Your task to perform on an android device: Open Google Chrome and open the bookmarks view Image 0: 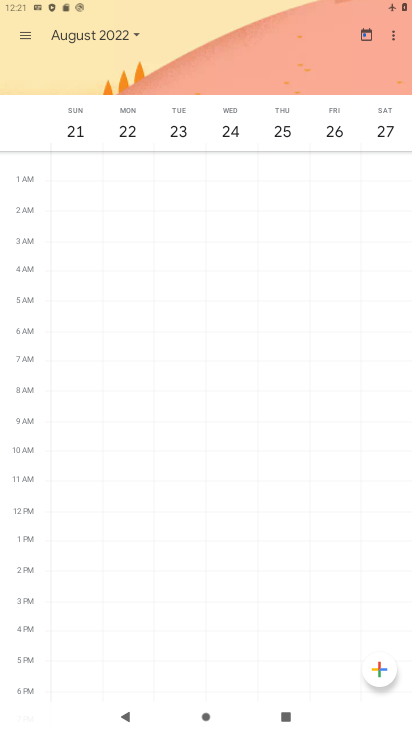
Step 0: press home button
Your task to perform on an android device: Open Google Chrome and open the bookmarks view Image 1: 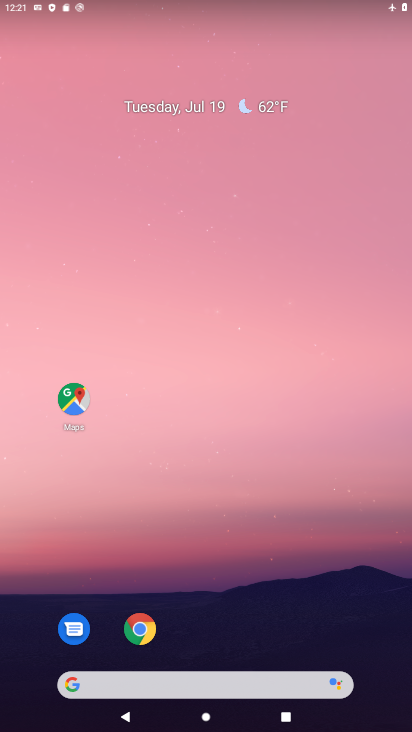
Step 1: click (143, 636)
Your task to perform on an android device: Open Google Chrome and open the bookmarks view Image 2: 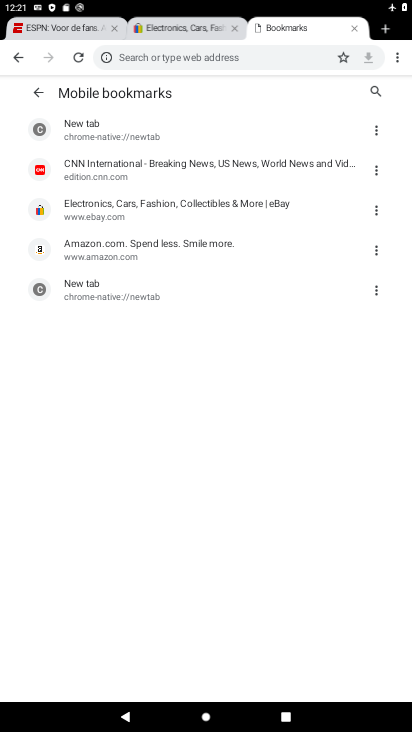
Step 2: task complete